Your task to perform on an android device: Go to display settings Image 0: 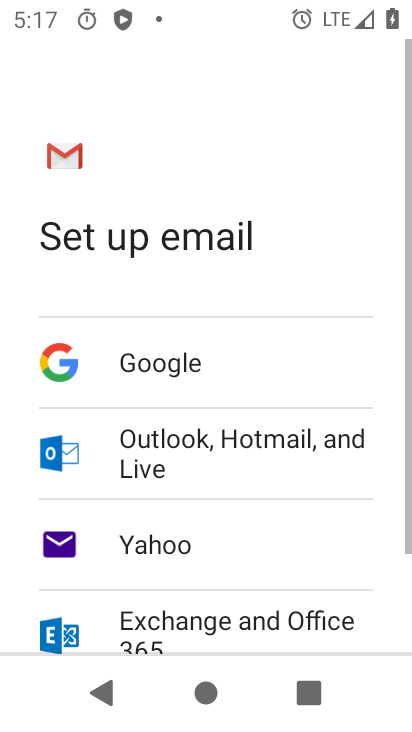
Step 0: drag from (250, 570) to (319, 172)
Your task to perform on an android device: Go to display settings Image 1: 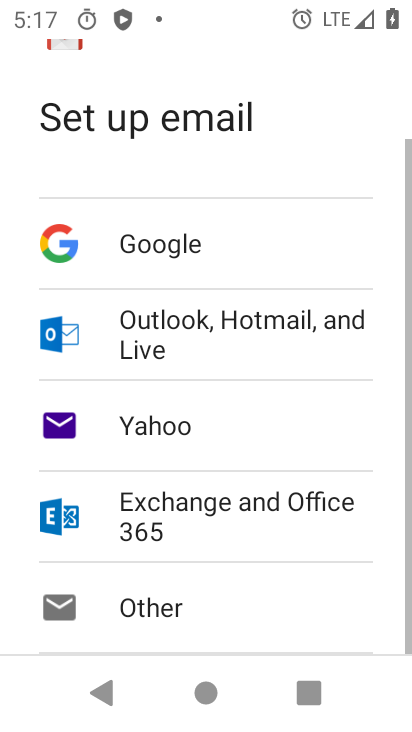
Step 1: press home button
Your task to perform on an android device: Go to display settings Image 2: 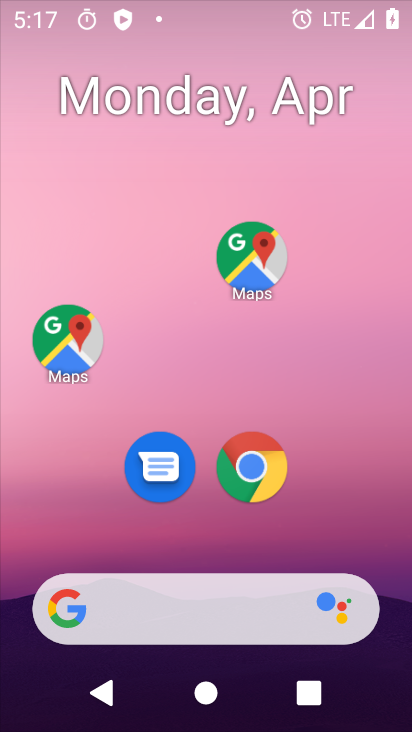
Step 2: drag from (245, 594) to (224, 1)
Your task to perform on an android device: Go to display settings Image 3: 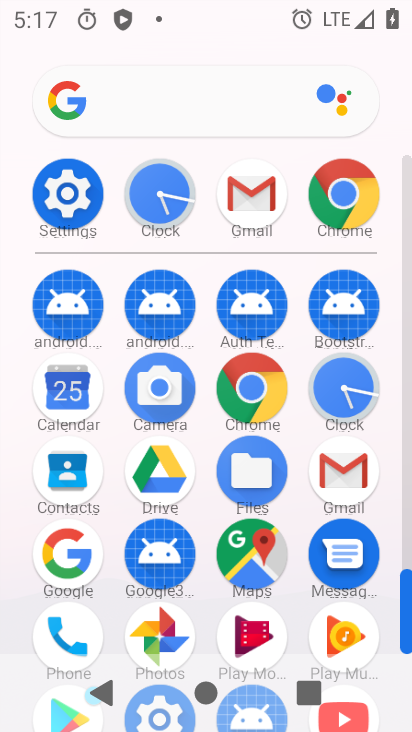
Step 3: drag from (212, 614) to (226, 35)
Your task to perform on an android device: Go to display settings Image 4: 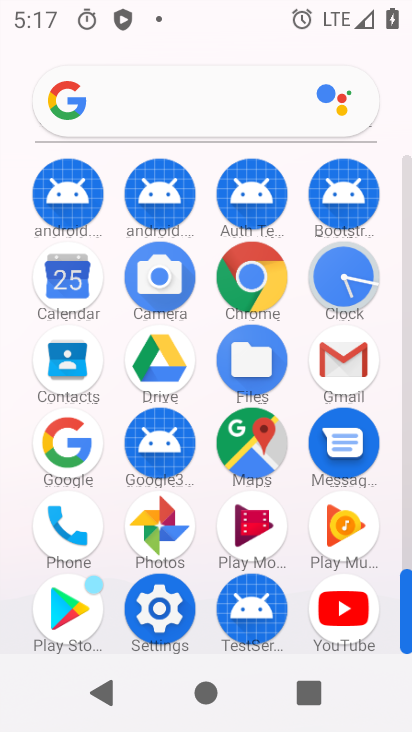
Step 4: click (164, 610)
Your task to perform on an android device: Go to display settings Image 5: 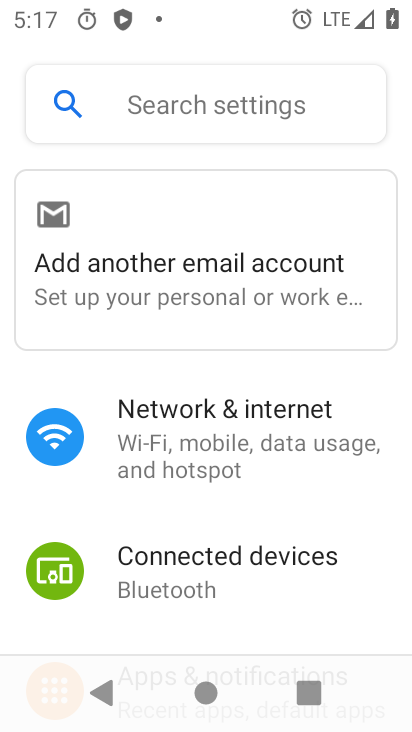
Step 5: drag from (248, 625) to (306, 44)
Your task to perform on an android device: Go to display settings Image 6: 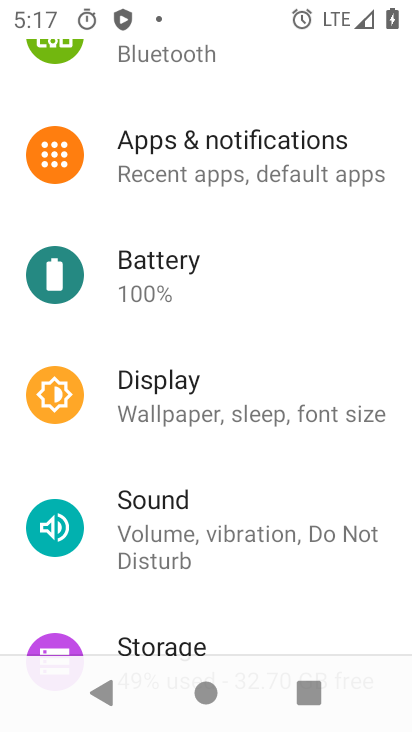
Step 6: click (268, 410)
Your task to perform on an android device: Go to display settings Image 7: 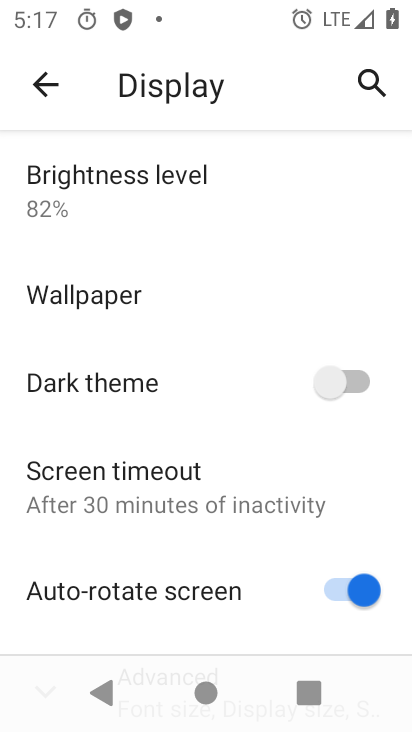
Step 7: task complete